Your task to perform on an android device: add a label to a message in the gmail app Image 0: 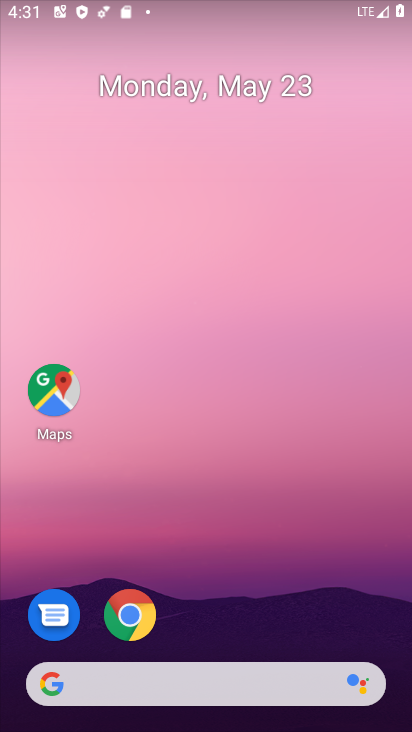
Step 0: drag from (273, 609) to (282, 149)
Your task to perform on an android device: add a label to a message in the gmail app Image 1: 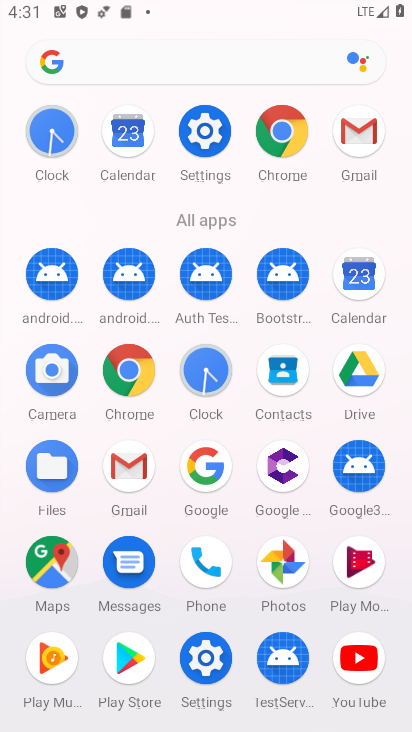
Step 1: click (121, 466)
Your task to perform on an android device: add a label to a message in the gmail app Image 2: 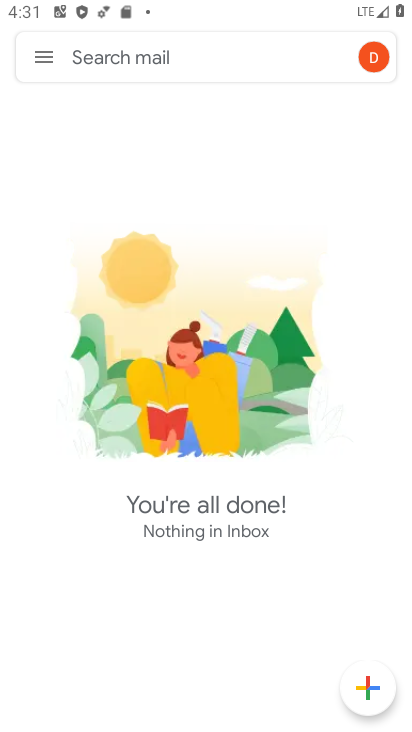
Step 2: task complete